Your task to perform on an android device: Open CNN.com Image 0: 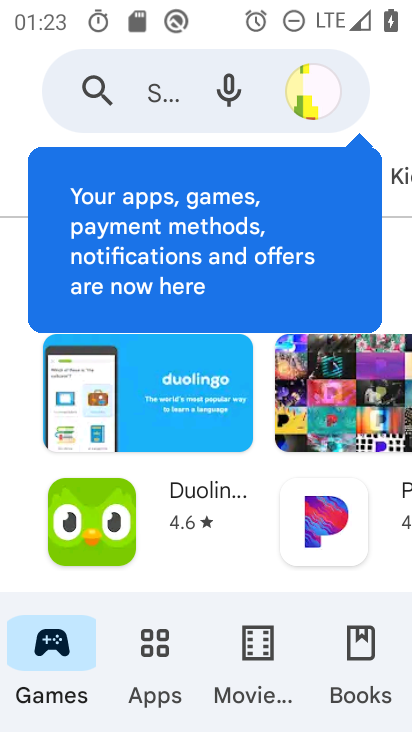
Step 0: press home button
Your task to perform on an android device: Open CNN.com Image 1: 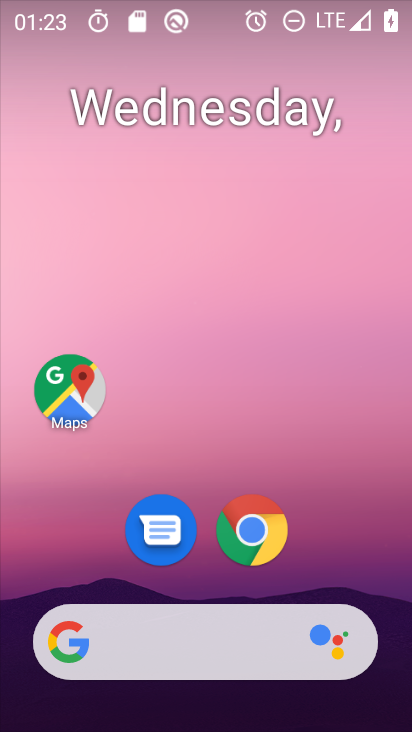
Step 1: drag from (220, 619) to (315, 9)
Your task to perform on an android device: Open CNN.com Image 2: 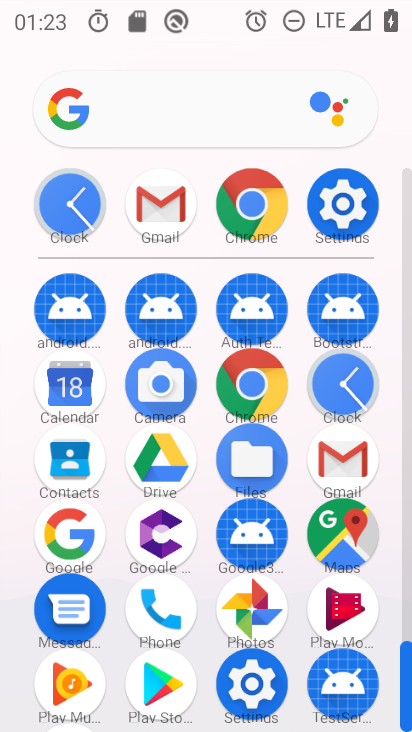
Step 2: click (244, 380)
Your task to perform on an android device: Open CNN.com Image 3: 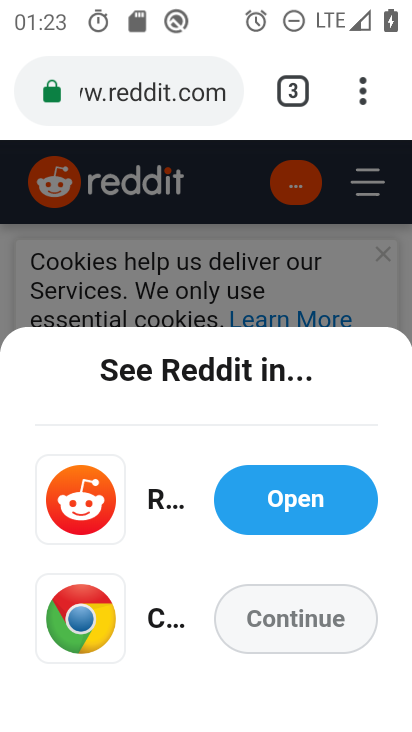
Step 3: click (190, 91)
Your task to perform on an android device: Open CNN.com Image 4: 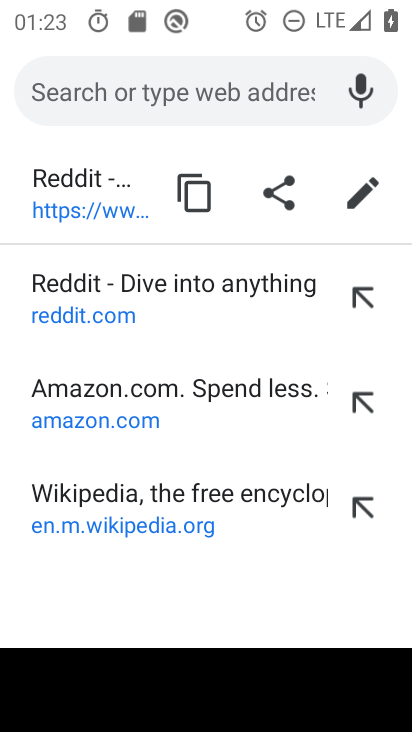
Step 4: type "cnn.com"
Your task to perform on an android device: Open CNN.com Image 5: 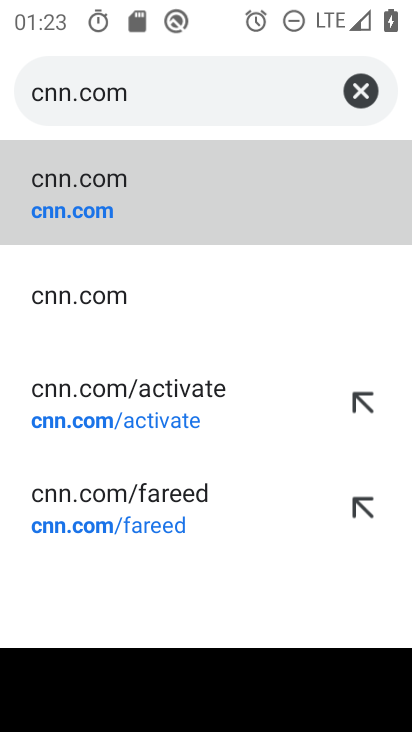
Step 5: click (99, 194)
Your task to perform on an android device: Open CNN.com Image 6: 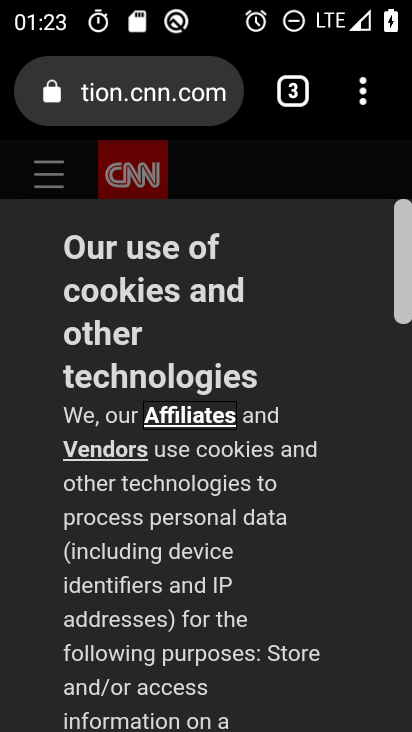
Step 6: task complete